Your task to perform on an android device: empty trash in the gmail app Image 0: 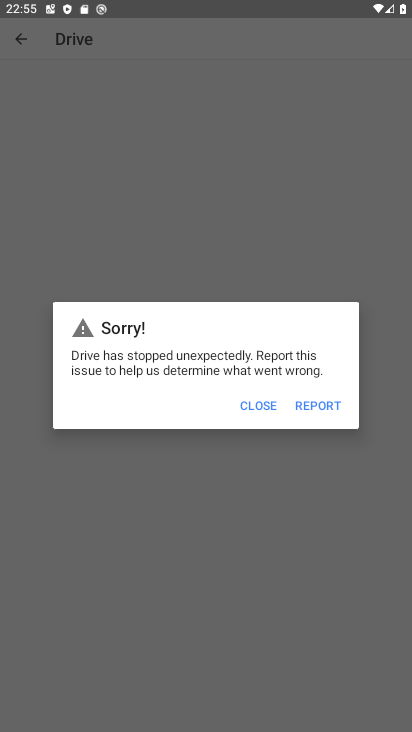
Step 0: press home button
Your task to perform on an android device: empty trash in the gmail app Image 1: 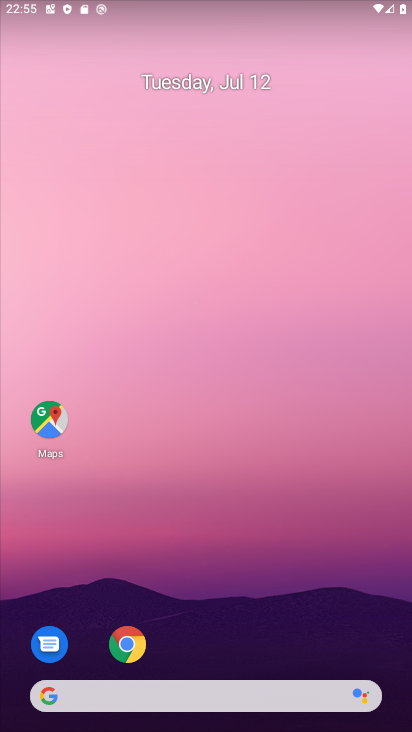
Step 1: drag from (182, 723) to (285, 8)
Your task to perform on an android device: empty trash in the gmail app Image 2: 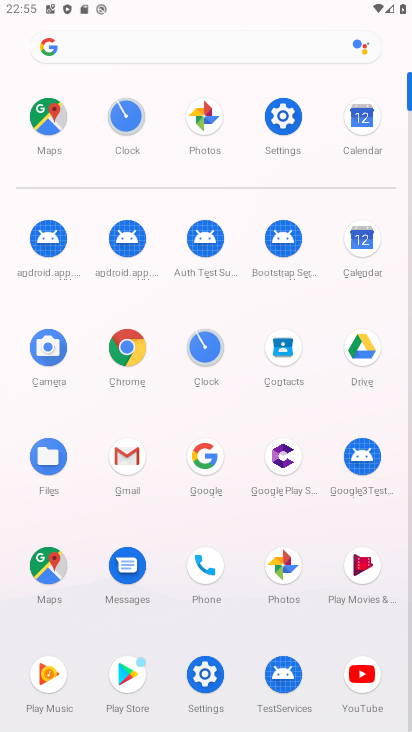
Step 2: click (133, 470)
Your task to perform on an android device: empty trash in the gmail app Image 3: 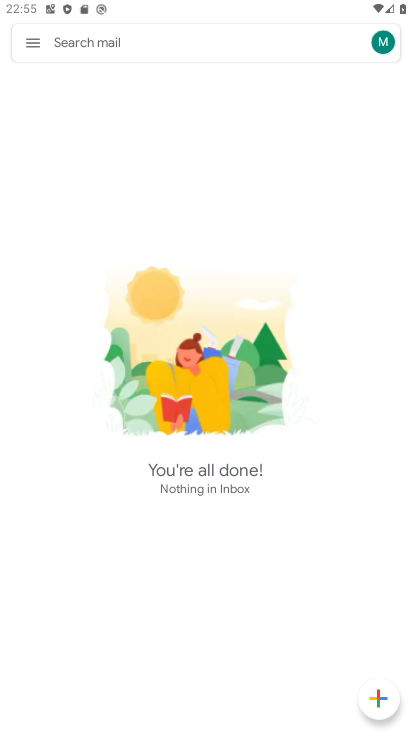
Step 3: click (28, 44)
Your task to perform on an android device: empty trash in the gmail app Image 4: 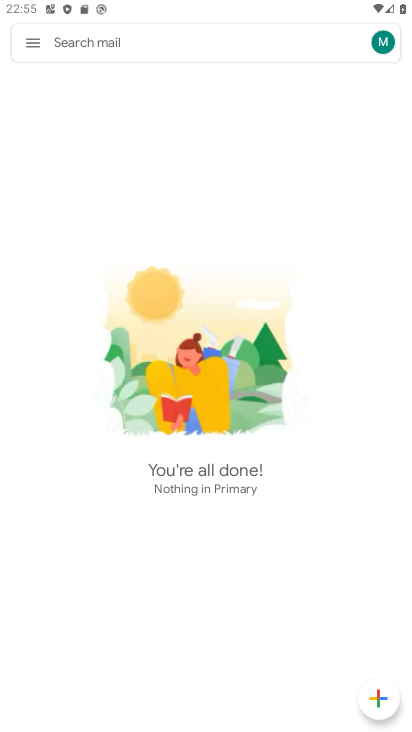
Step 4: click (35, 37)
Your task to perform on an android device: empty trash in the gmail app Image 5: 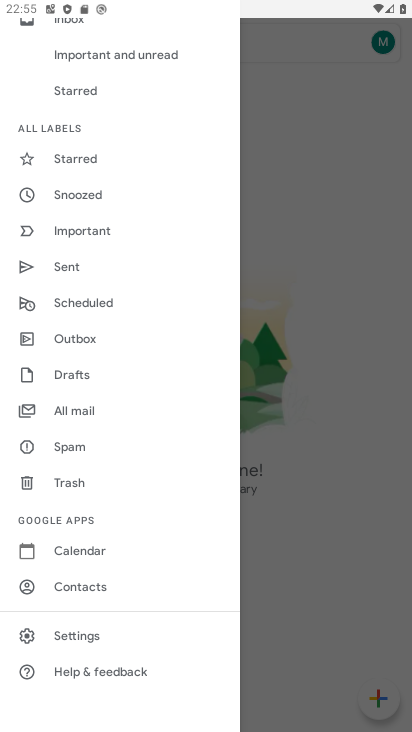
Step 5: click (87, 479)
Your task to perform on an android device: empty trash in the gmail app Image 6: 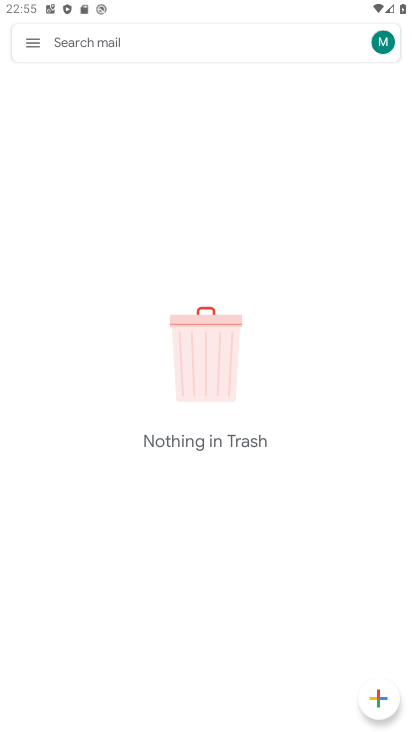
Step 6: task complete